Your task to perform on an android device: toggle show notifications on the lock screen Image 0: 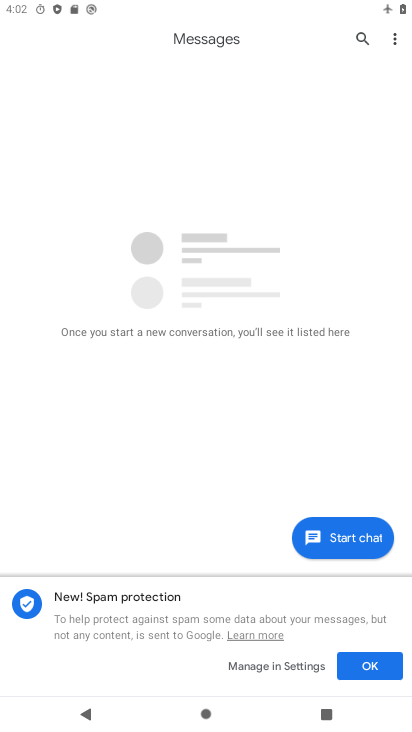
Step 0: press home button
Your task to perform on an android device: toggle show notifications on the lock screen Image 1: 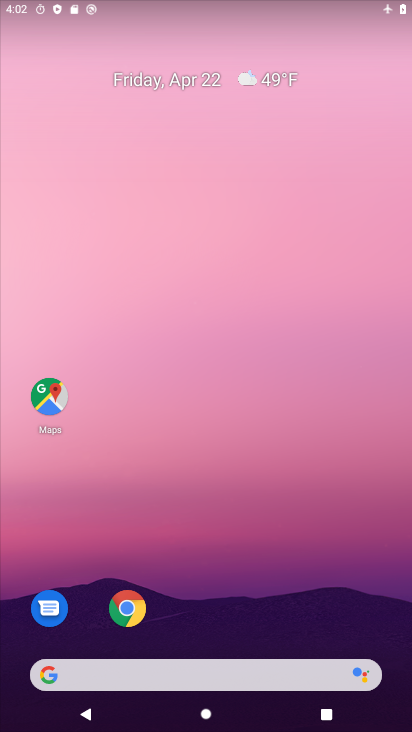
Step 1: drag from (290, 568) to (280, 2)
Your task to perform on an android device: toggle show notifications on the lock screen Image 2: 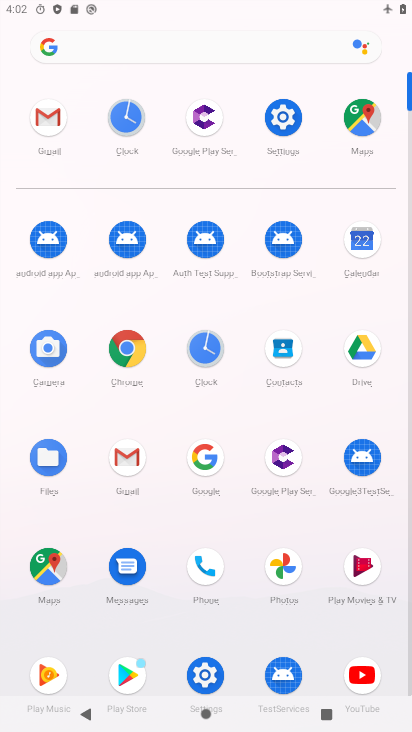
Step 2: click (287, 109)
Your task to perform on an android device: toggle show notifications on the lock screen Image 3: 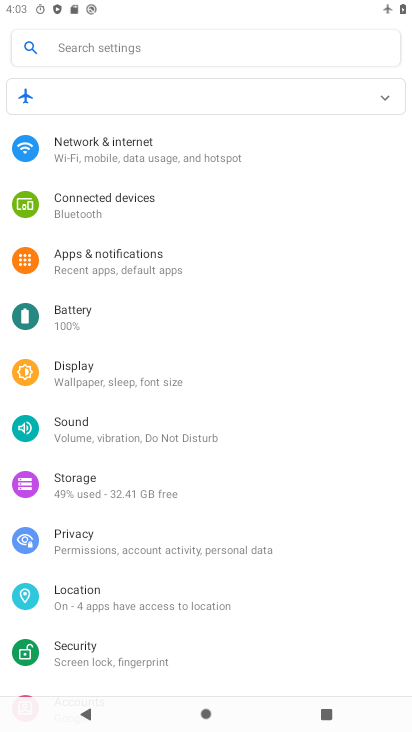
Step 3: click (143, 258)
Your task to perform on an android device: toggle show notifications on the lock screen Image 4: 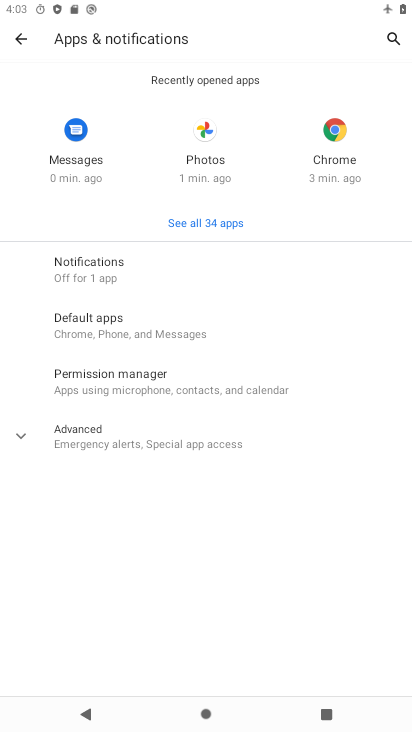
Step 4: click (105, 268)
Your task to perform on an android device: toggle show notifications on the lock screen Image 5: 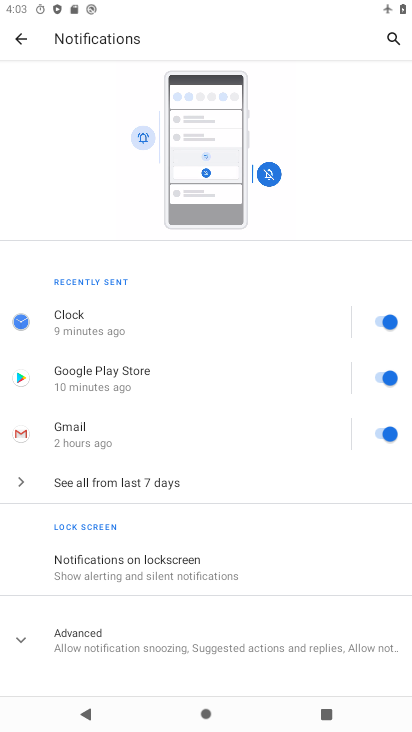
Step 5: click (163, 567)
Your task to perform on an android device: toggle show notifications on the lock screen Image 6: 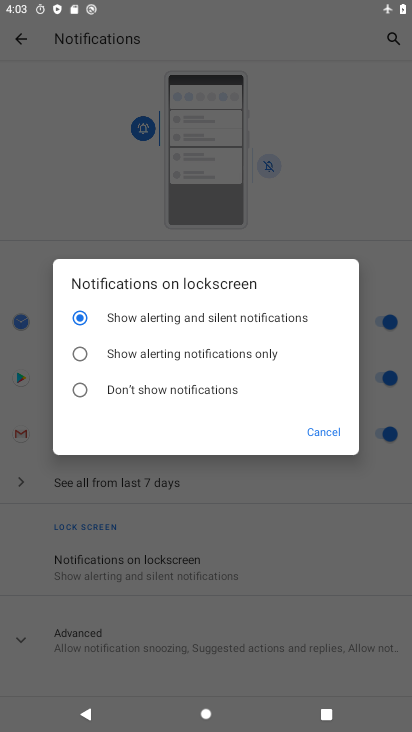
Step 6: click (82, 353)
Your task to perform on an android device: toggle show notifications on the lock screen Image 7: 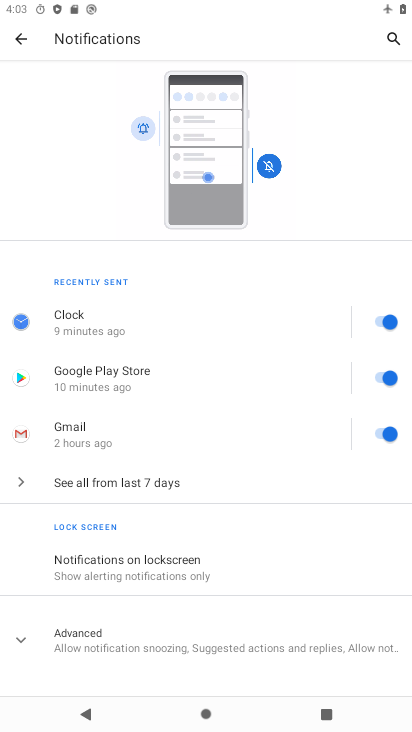
Step 7: task complete